Your task to perform on an android device: Open Maps and search for coffee Image 0: 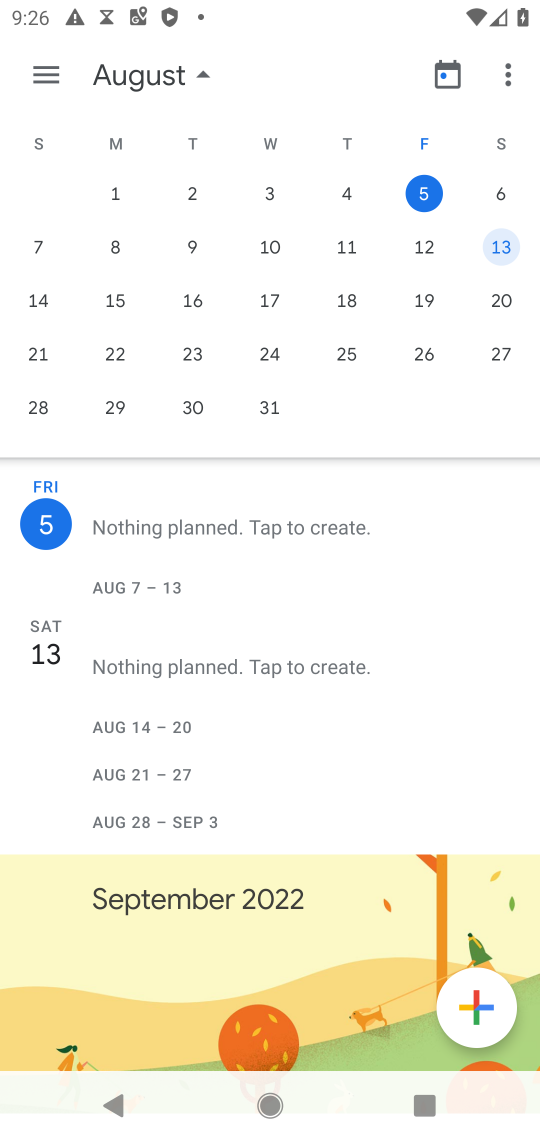
Step 0: press home button
Your task to perform on an android device: Open Maps and search for coffee Image 1: 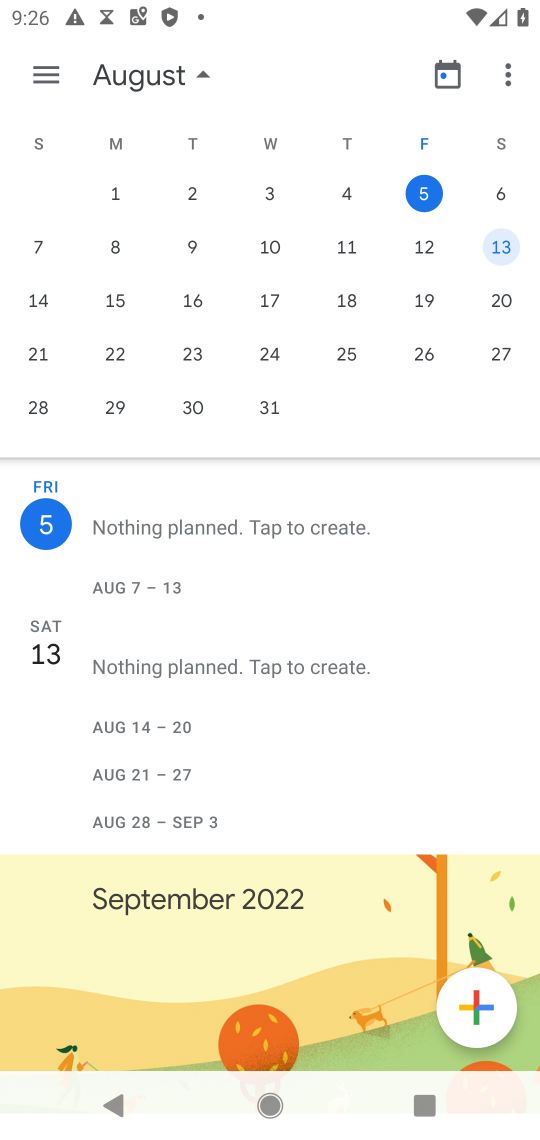
Step 1: press home button
Your task to perform on an android device: Open Maps and search for coffee Image 2: 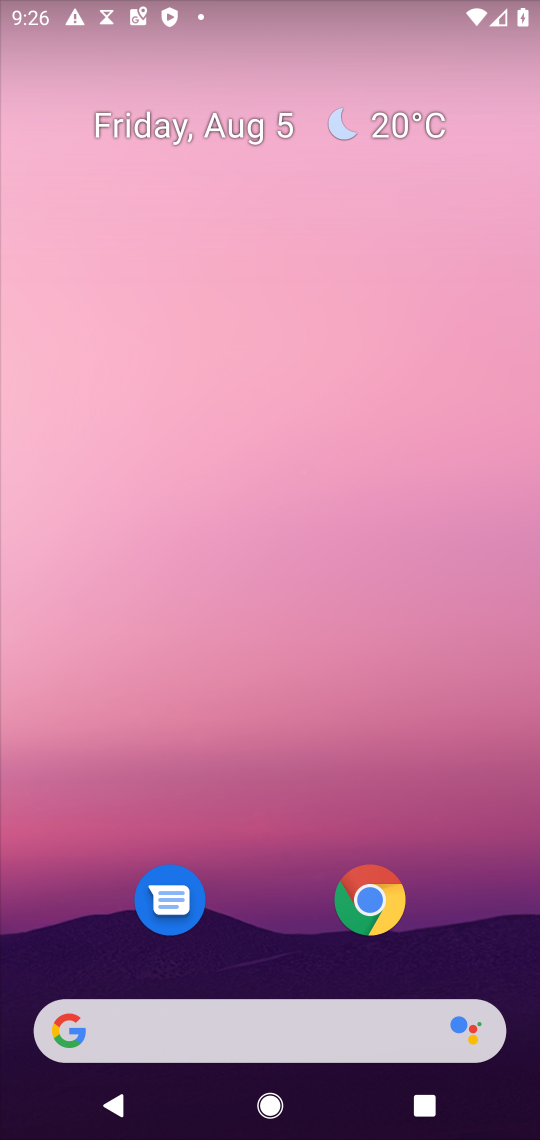
Step 2: drag from (165, 873) to (161, 204)
Your task to perform on an android device: Open Maps and search for coffee Image 3: 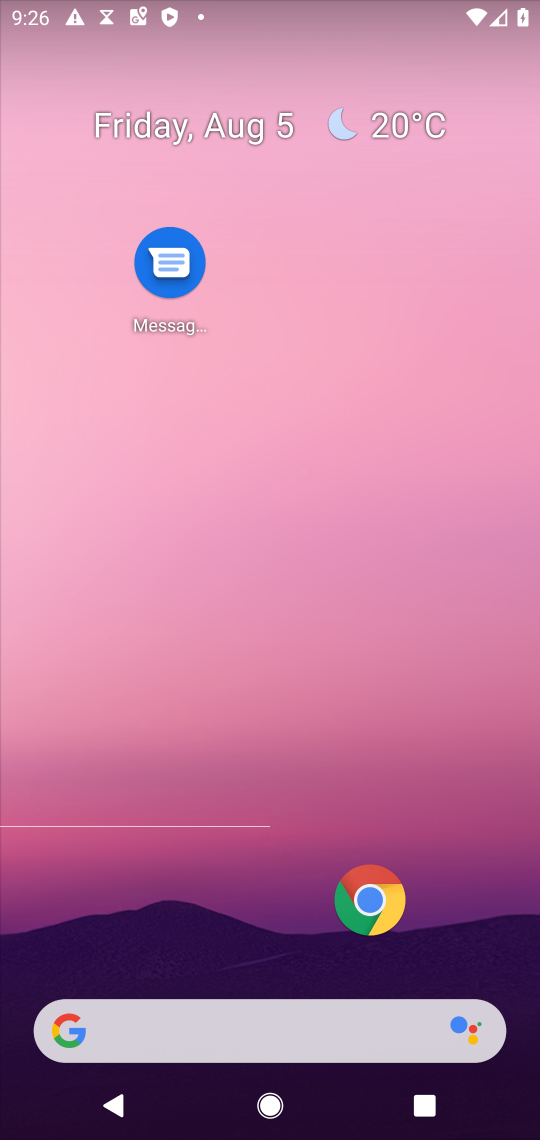
Step 3: drag from (156, 905) to (155, 40)
Your task to perform on an android device: Open Maps and search for coffee Image 4: 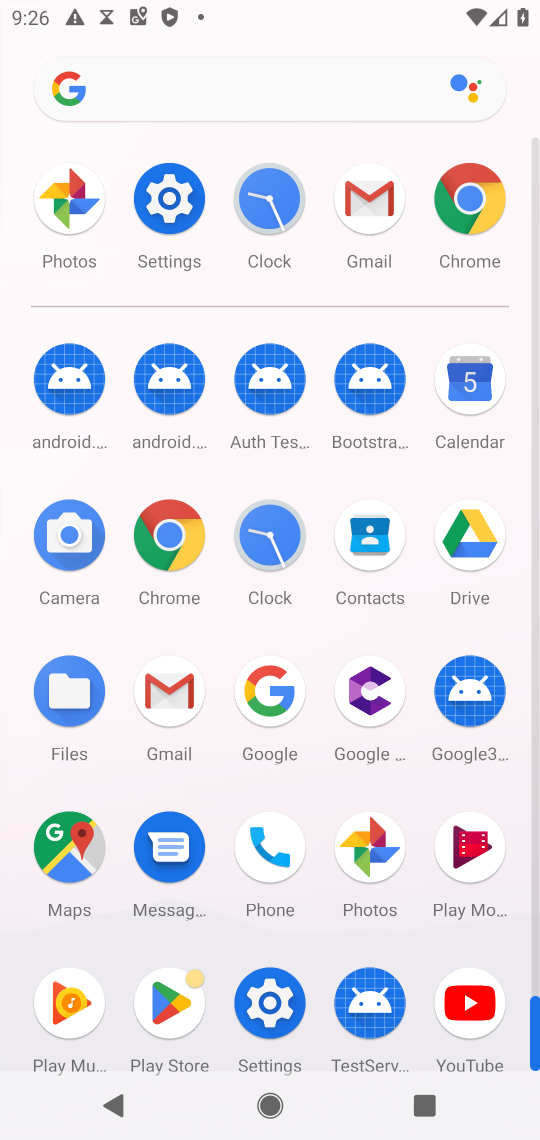
Step 4: click (48, 827)
Your task to perform on an android device: Open Maps and search for coffee Image 5: 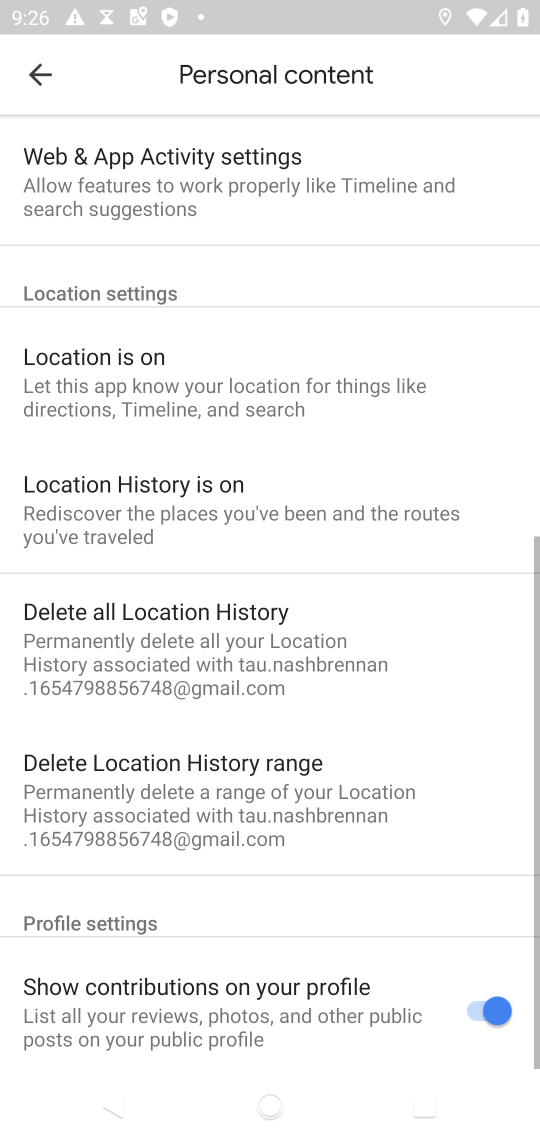
Step 5: click (33, 64)
Your task to perform on an android device: Open Maps and search for coffee Image 6: 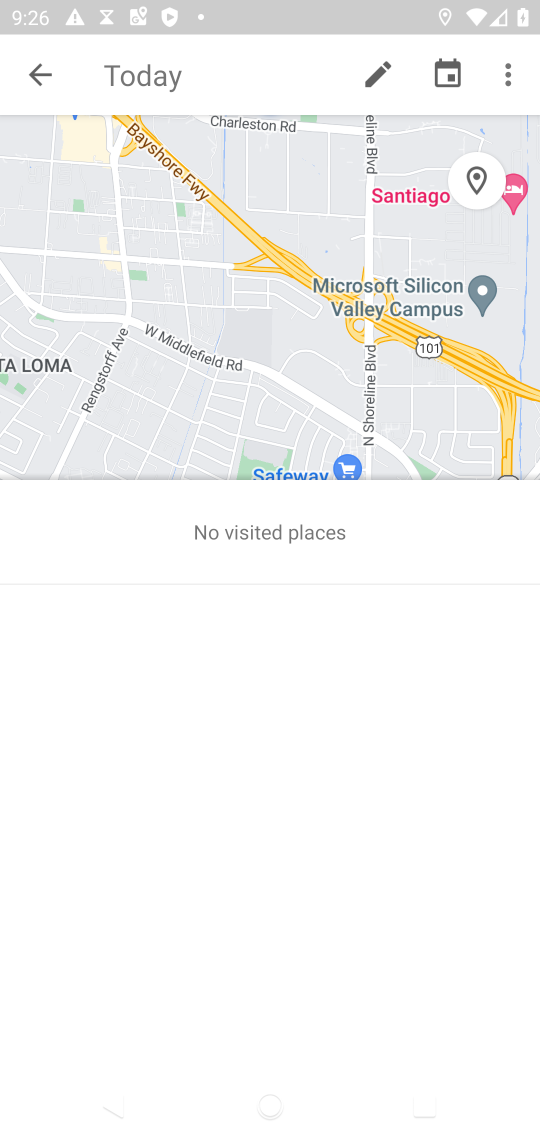
Step 6: click (46, 67)
Your task to perform on an android device: Open Maps and search for coffee Image 7: 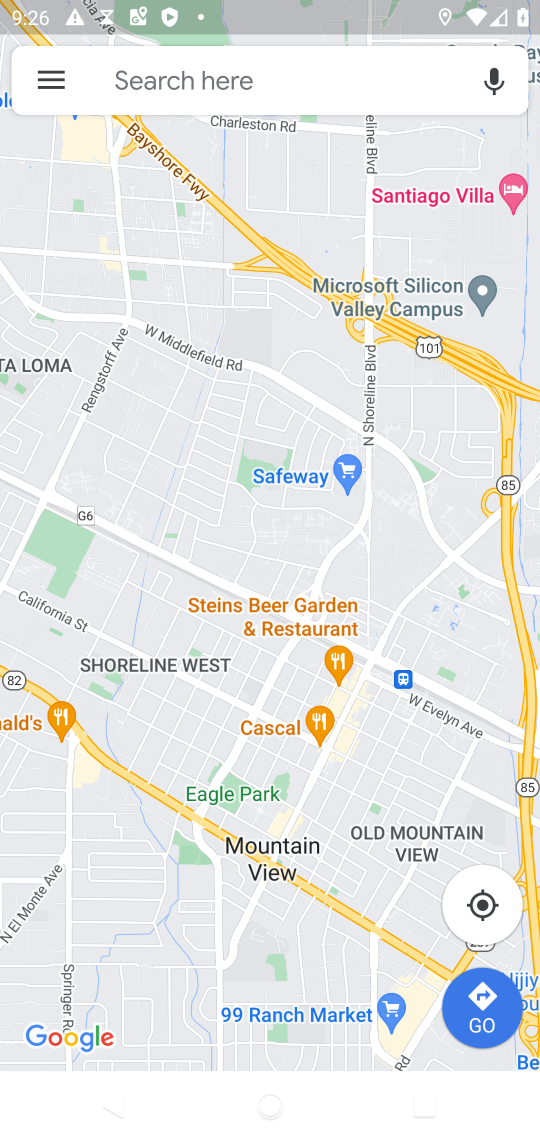
Step 7: click (177, 76)
Your task to perform on an android device: Open Maps and search for coffee Image 8: 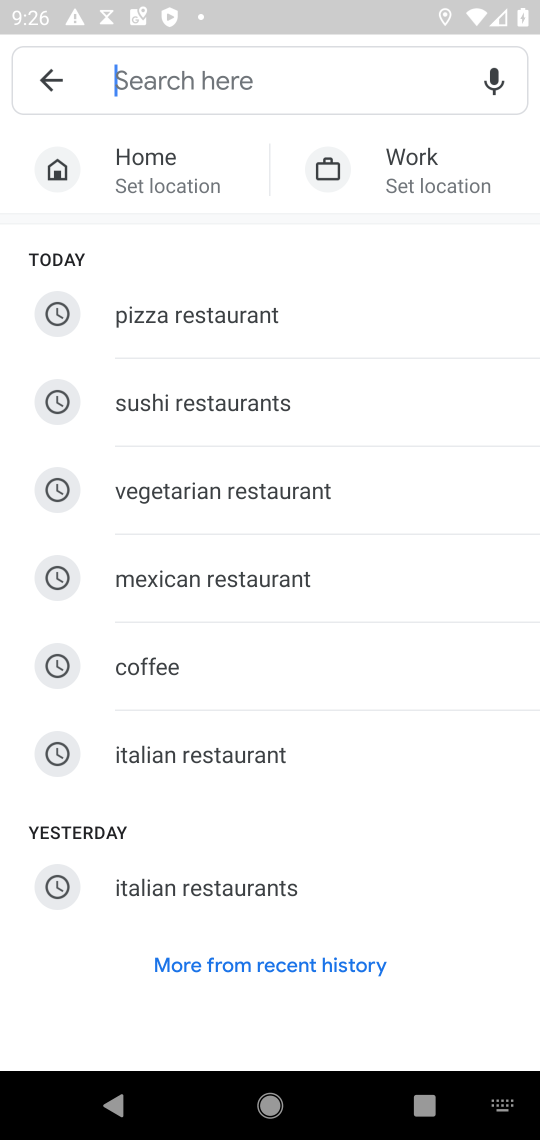
Step 8: type "coffee"
Your task to perform on an android device: Open Maps and search for coffee Image 9: 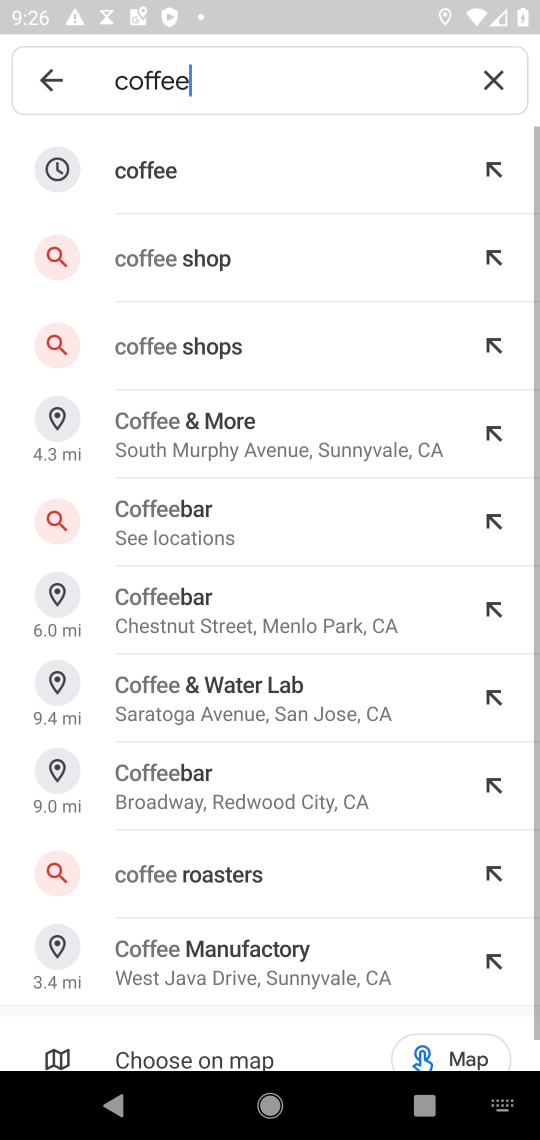
Step 9: click (244, 162)
Your task to perform on an android device: Open Maps and search for coffee Image 10: 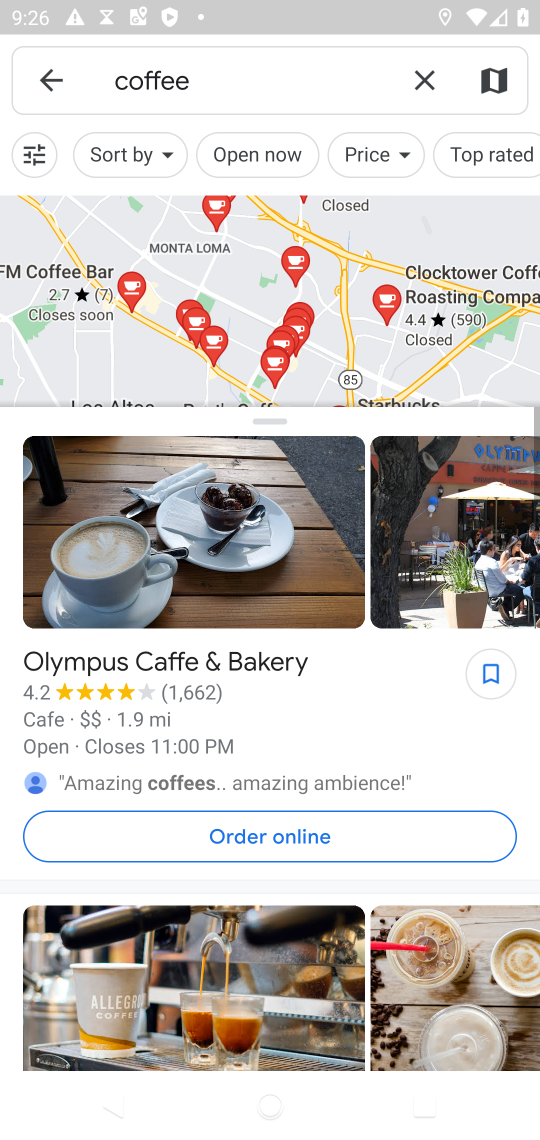
Step 10: task complete